Your task to perform on an android device: Is it going to rain today? Image 0: 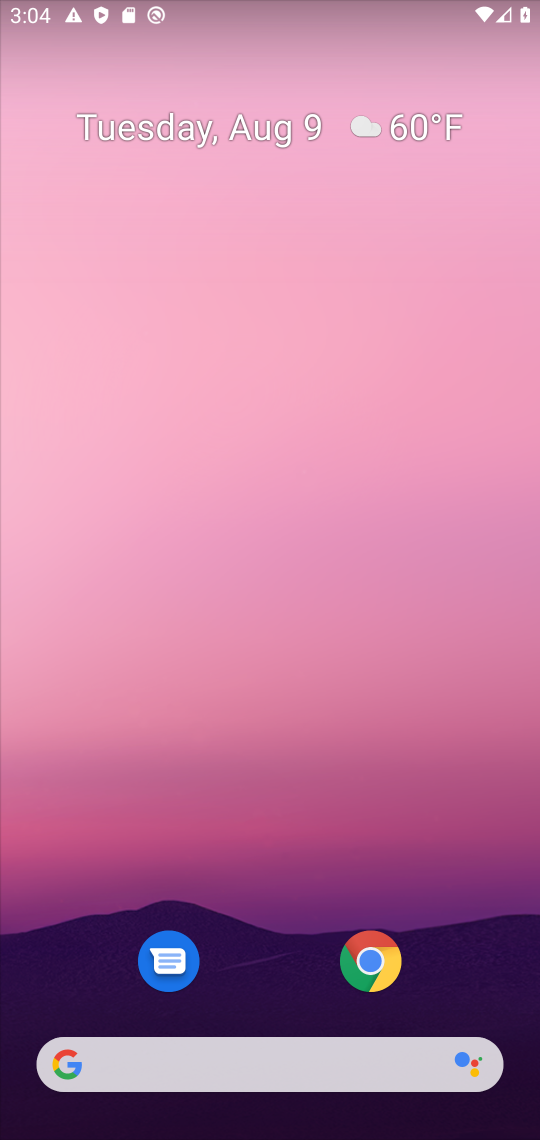
Step 0: drag from (300, 874) to (296, 261)
Your task to perform on an android device: Is it going to rain today? Image 1: 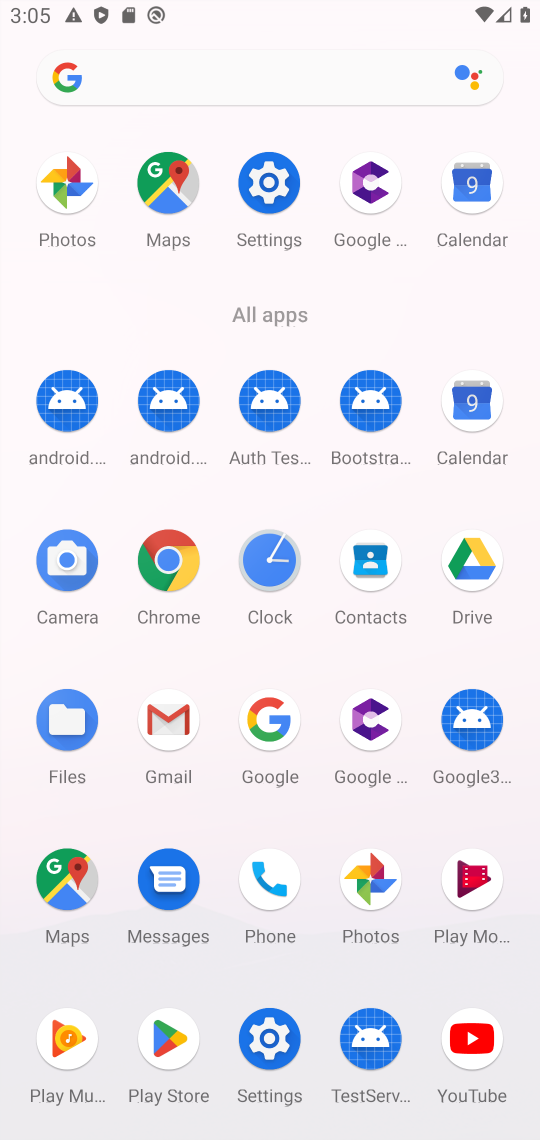
Step 1: click (269, 735)
Your task to perform on an android device: Is it going to rain today? Image 2: 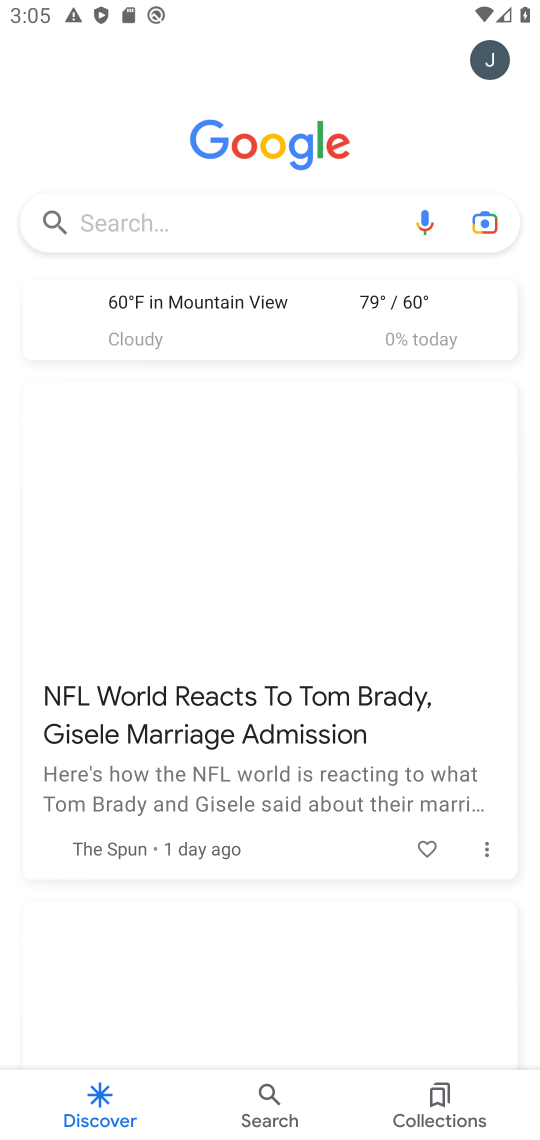
Step 2: click (151, 229)
Your task to perform on an android device: Is it going to rain today? Image 3: 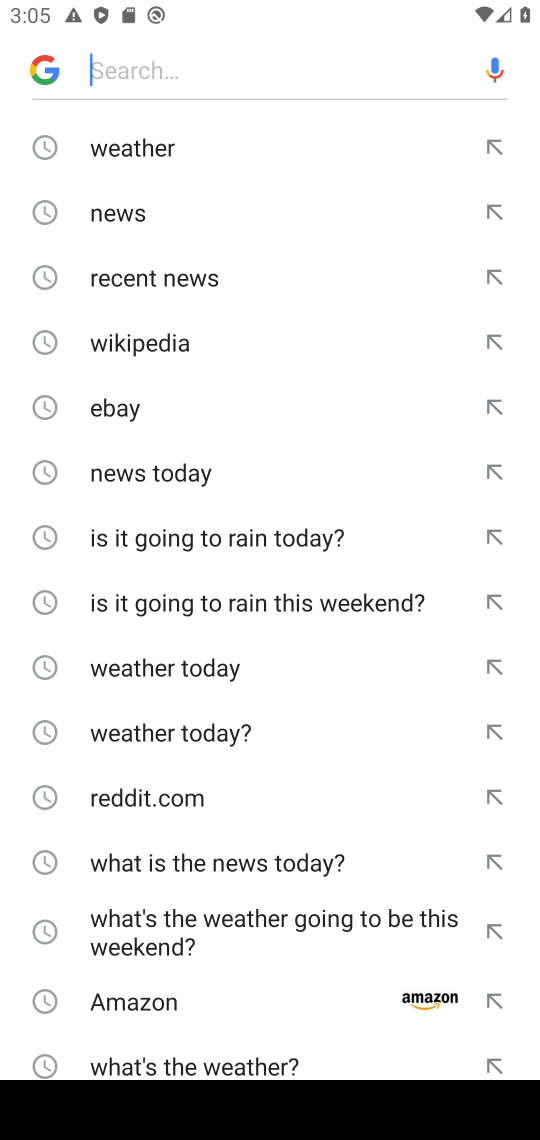
Step 3: click (195, 547)
Your task to perform on an android device: Is it going to rain today? Image 4: 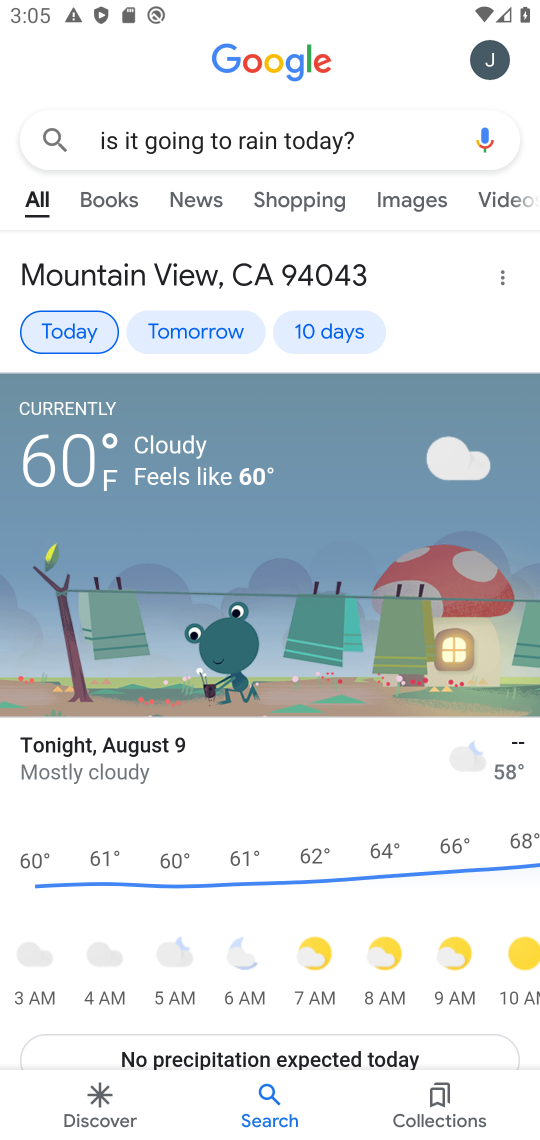
Step 4: task complete